Your task to perform on an android device: Search for pizza restaurants on Maps Image 0: 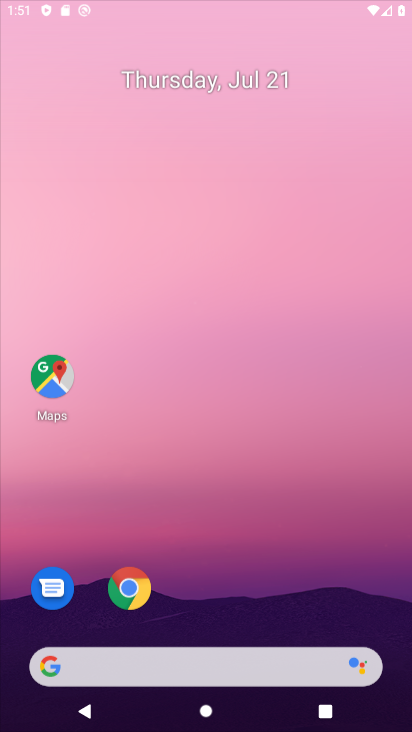
Step 0: click (405, 106)
Your task to perform on an android device: Search for pizza restaurants on Maps Image 1: 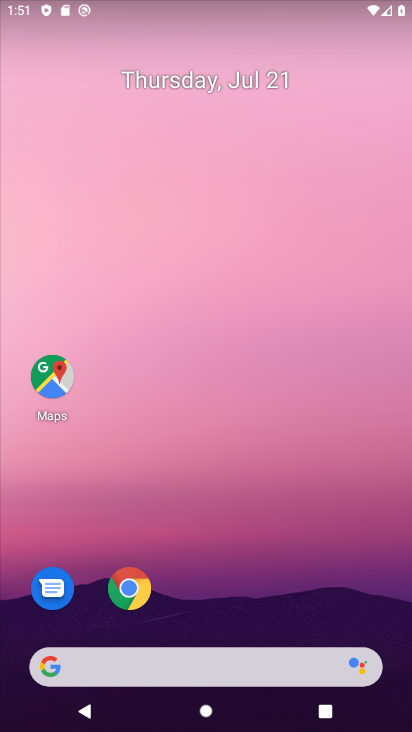
Step 1: drag from (171, 616) to (266, 159)
Your task to perform on an android device: Search for pizza restaurants on Maps Image 2: 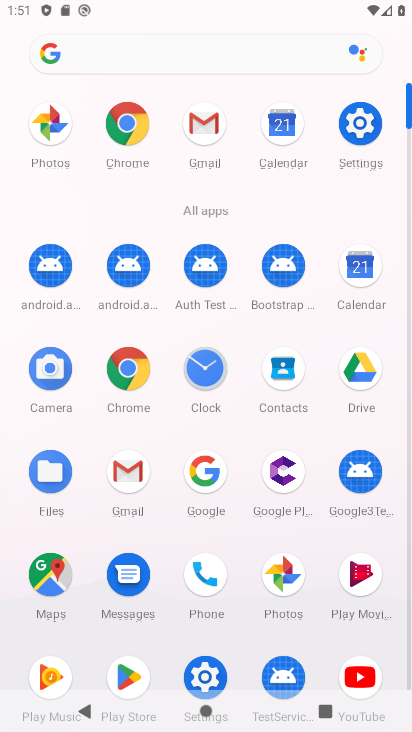
Step 2: click (62, 585)
Your task to perform on an android device: Search for pizza restaurants on Maps Image 3: 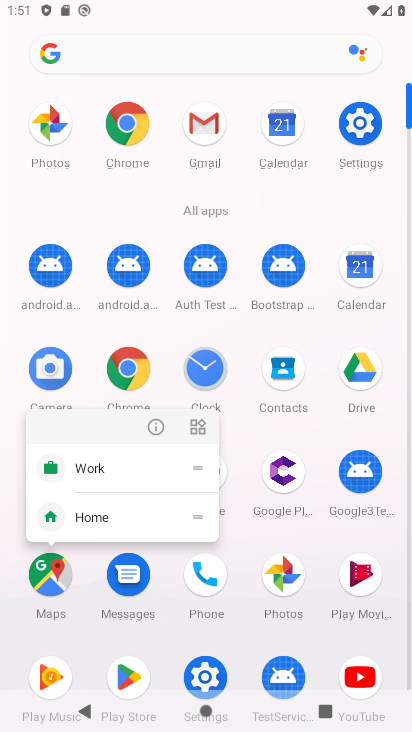
Step 3: click (154, 419)
Your task to perform on an android device: Search for pizza restaurants on Maps Image 4: 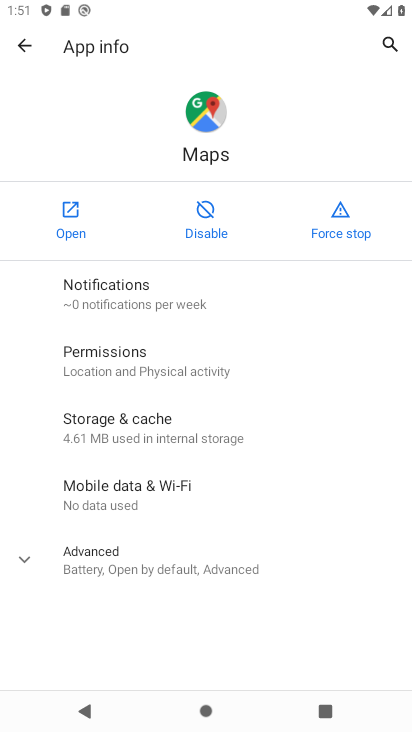
Step 4: click (66, 219)
Your task to perform on an android device: Search for pizza restaurants on Maps Image 5: 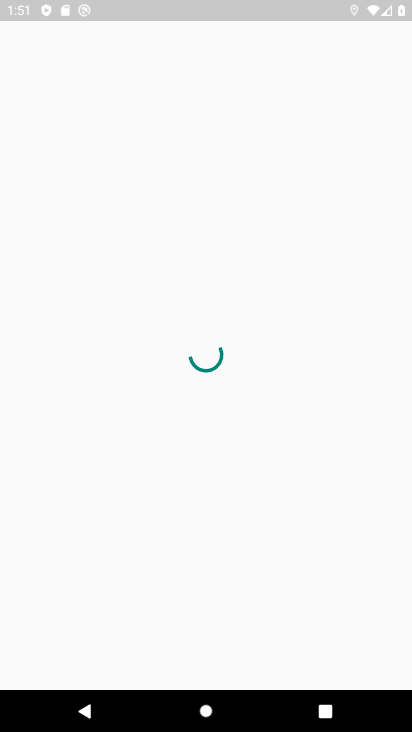
Step 5: click (106, 53)
Your task to perform on an android device: Search for pizza restaurants on Maps Image 6: 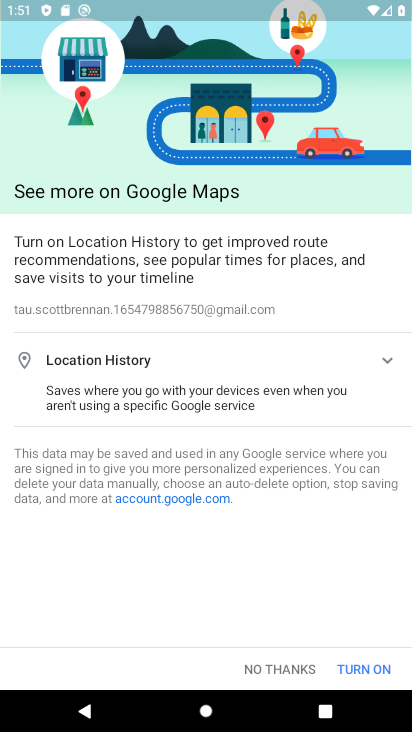
Step 6: click (372, 667)
Your task to perform on an android device: Search for pizza restaurants on Maps Image 7: 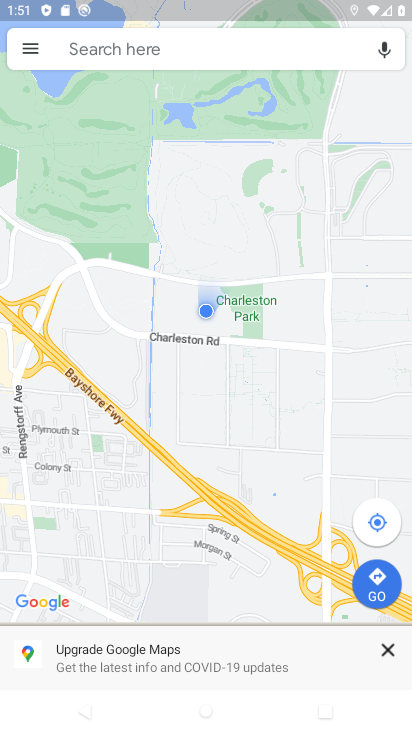
Step 7: click (126, 47)
Your task to perform on an android device: Search for pizza restaurants on Maps Image 8: 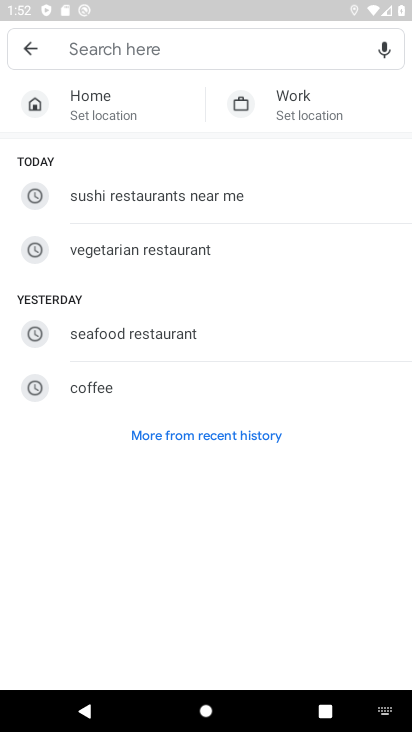
Step 8: type "pizza restaurants"
Your task to perform on an android device: Search for pizza restaurants on Maps Image 9: 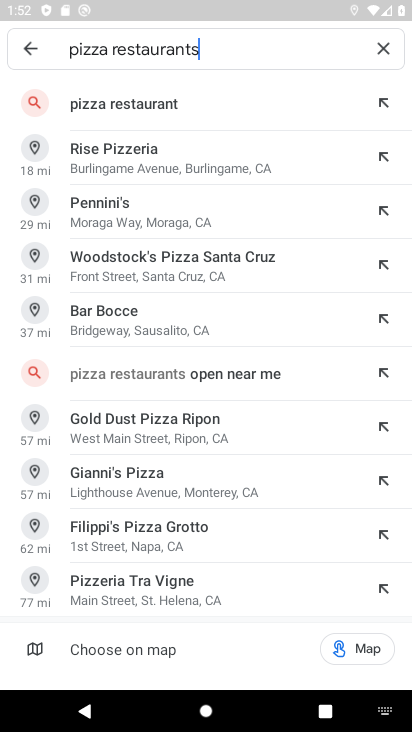
Step 9: type ""
Your task to perform on an android device: Search for pizza restaurants on Maps Image 10: 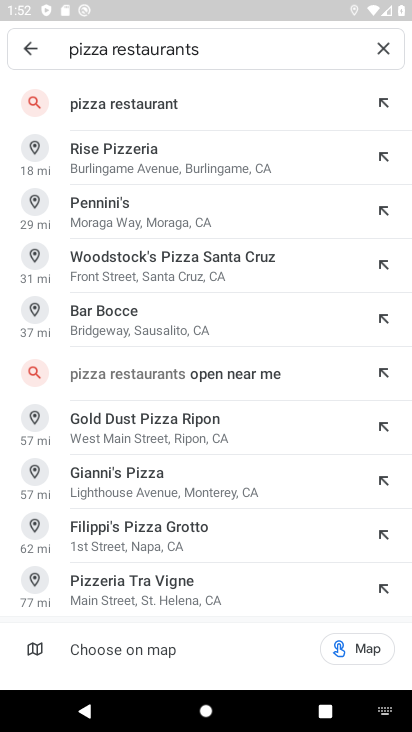
Step 10: click (155, 103)
Your task to perform on an android device: Search for pizza restaurants on Maps Image 11: 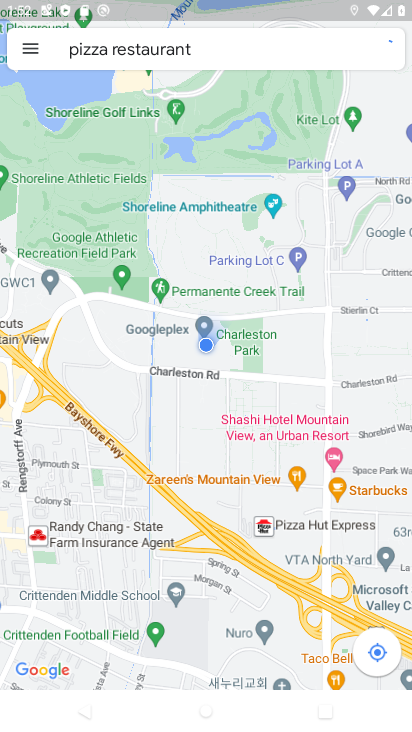
Step 11: task complete